Your task to perform on an android device: clear history in the chrome app Image 0: 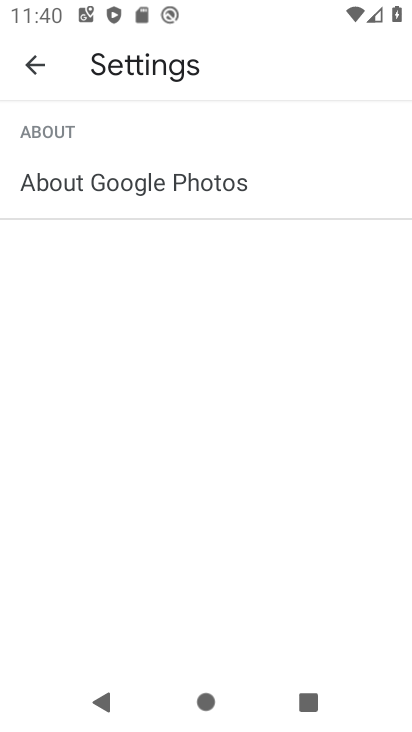
Step 0: press home button
Your task to perform on an android device: clear history in the chrome app Image 1: 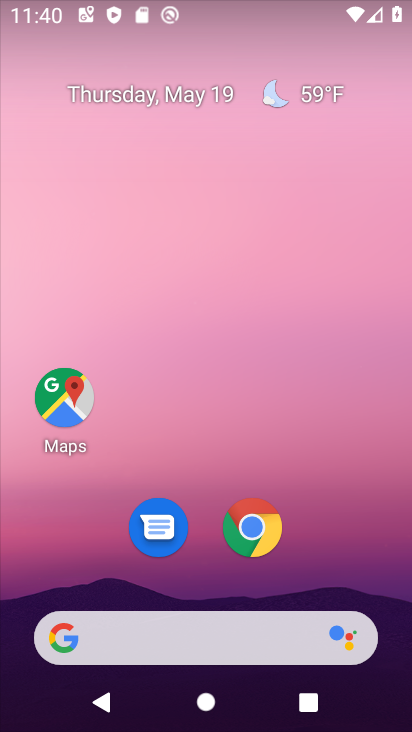
Step 1: click (252, 527)
Your task to perform on an android device: clear history in the chrome app Image 2: 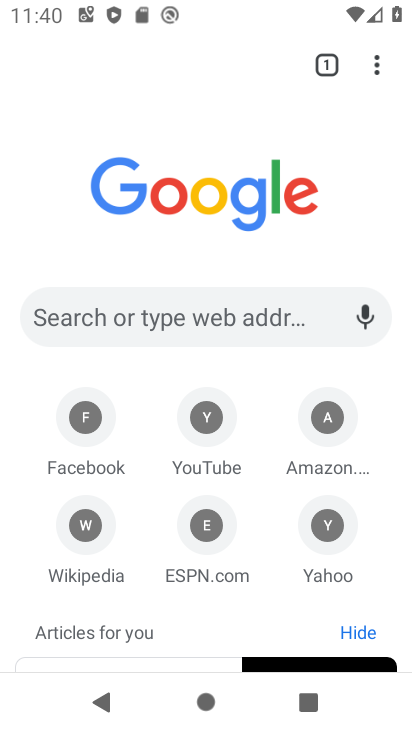
Step 2: click (371, 72)
Your task to perform on an android device: clear history in the chrome app Image 3: 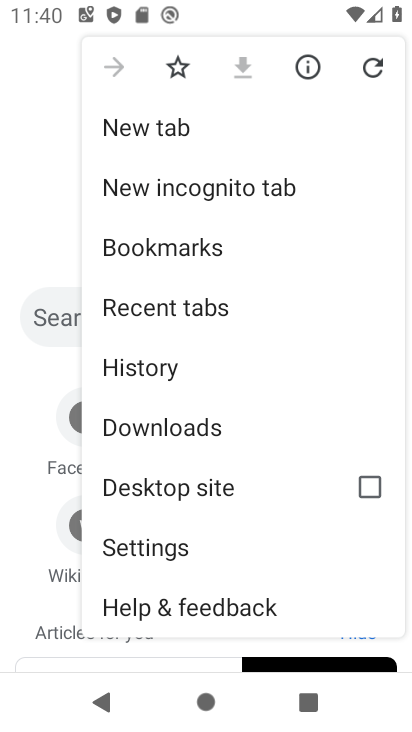
Step 3: click (207, 362)
Your task to perform on an android device: clear history in the chrome app Image 4: 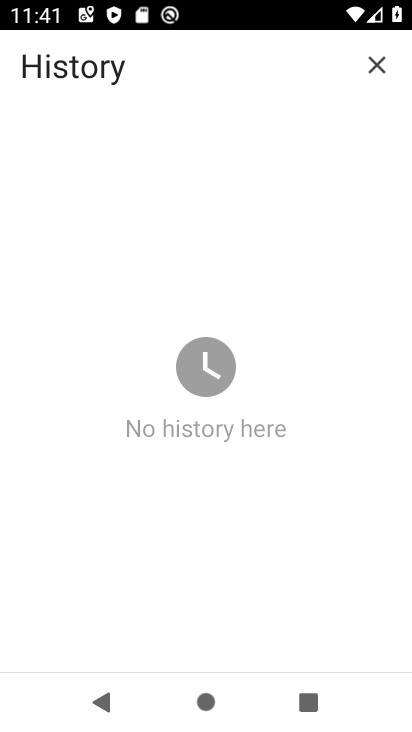
Step 4: task complete